Your task to perform on an android device: turn on the 24-hour format for clock Image 0: 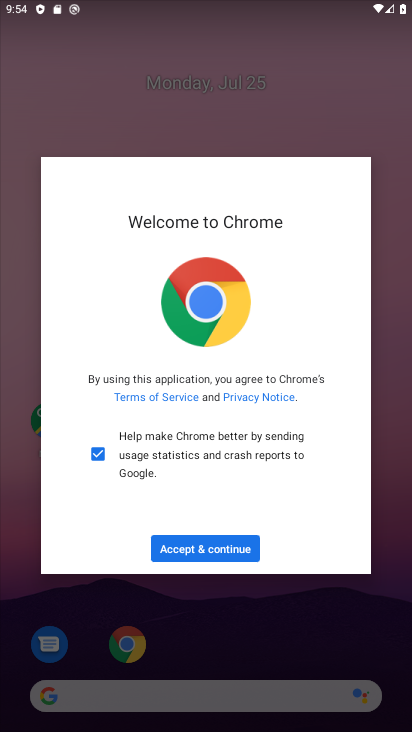
Step 0: click (228, 556)
Your task to perform on an android device: turn on the 24-hour format for clock Image 1: 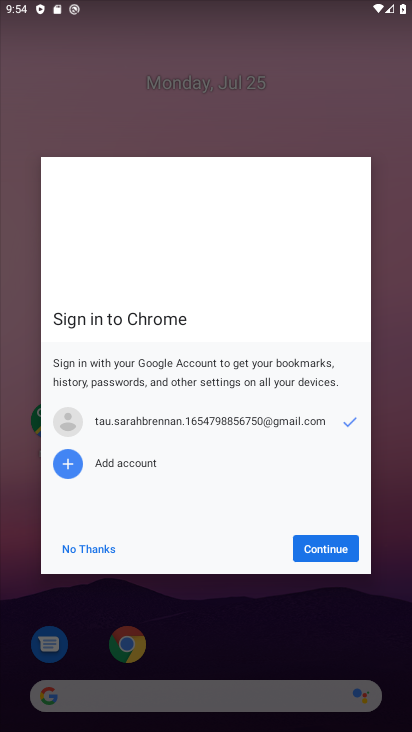
Step 1: click (332, 555)
Your task to perform on an android device: turn on the 24-hour format for clock Image 2: 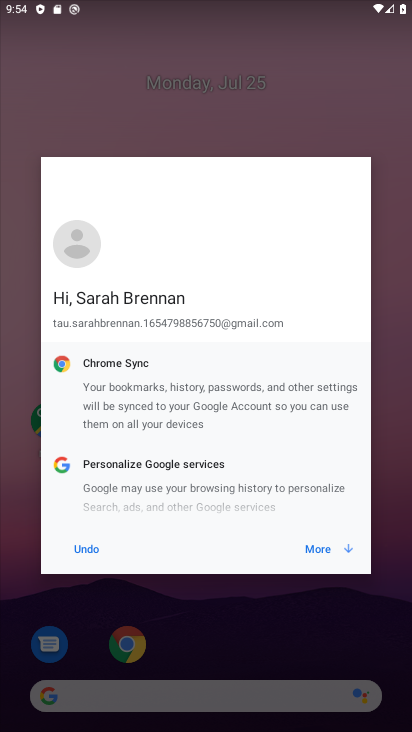
Step 2: click (325, 551)
Your task to perform on an android device: turn on the 24-hour format for clock Image 3: 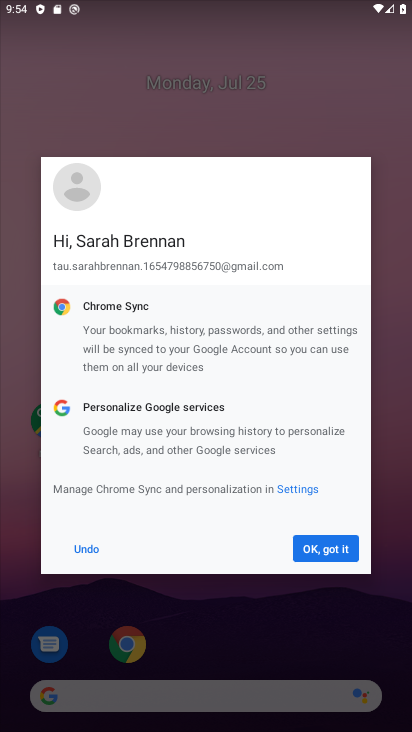
Step 3: click (327, 557)
Your task to perform on an android device: turn on the 24-hour format for clock Image 4: 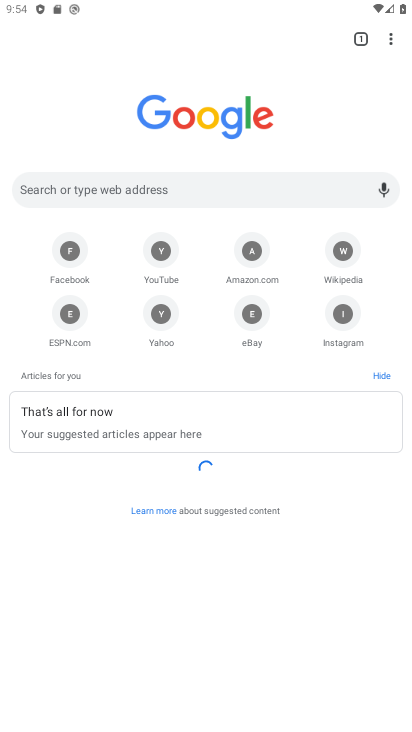
Step 4: press home button
Your task to perform on an android device: turn on the 24-hour format for clock Image 5: 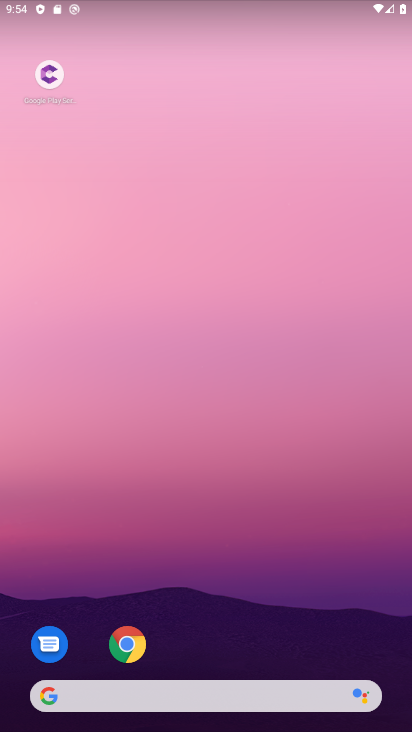
Step 5: drag from (235, 648) to (292, 94)
Your task to perform on an android device: turn on the 24-hour format for clock Image 6: 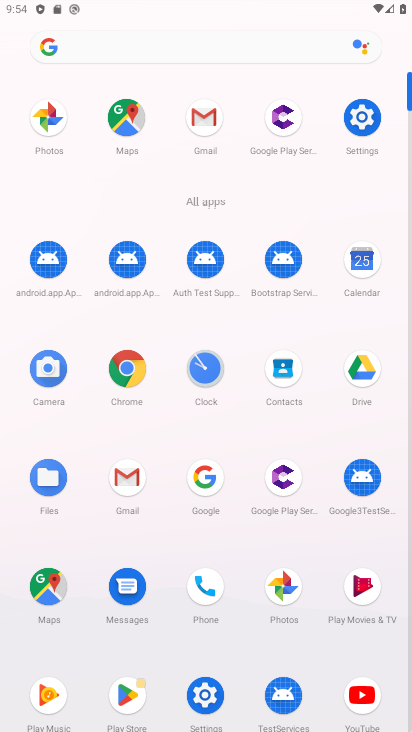
Step 6: click (203, 371)
Your task to perform on an android device: turn on the 24-hour format for clock Image 7: 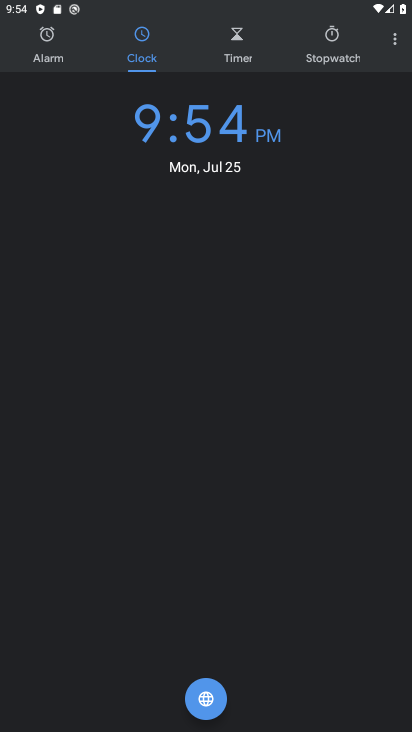
Step 7: click (398, 41)
Your task to perform on an android device: turn on the 24-hour format for clock Image 8: 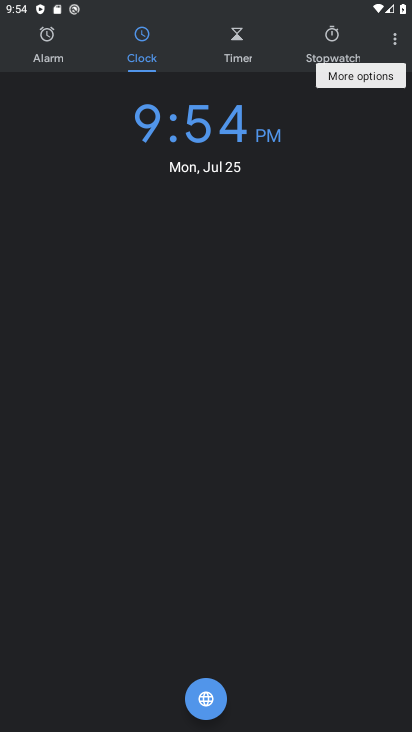
Step 8: click (389, 40)
Your task to perform on an android device: turn on the 24-hour format for clock Image 9: 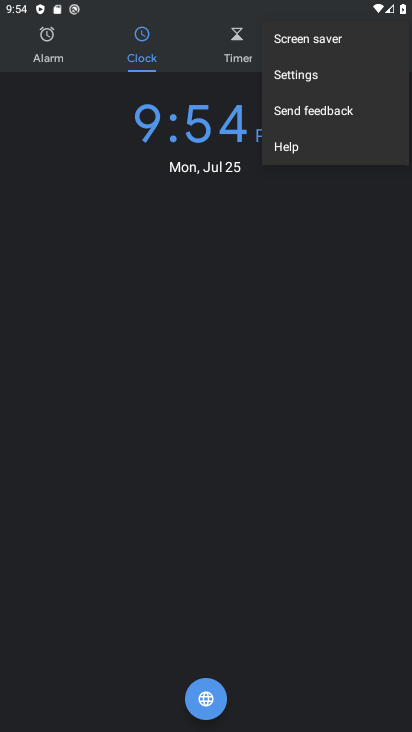
Step 9: click (321, 68)
Your task to perform on an android device: turn on the 24-hour format for clock Image 10: 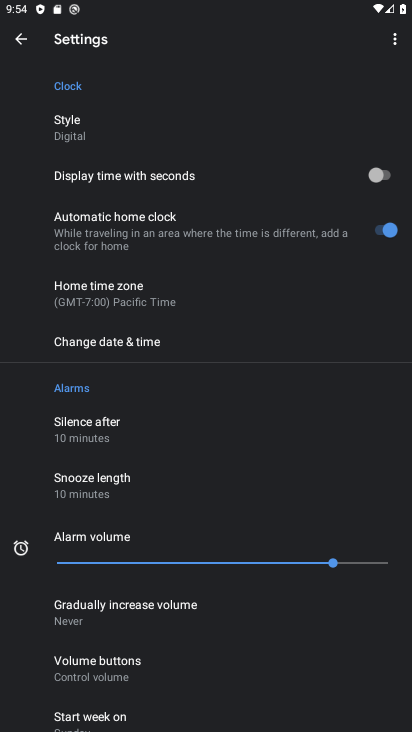
Step 10: click (154, 346)
Your task to perform on an android device: turn on the 24-hour format for clock Image 11: 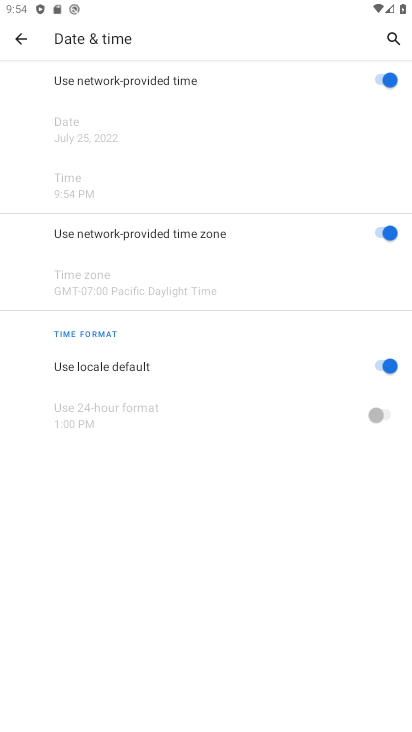
Step 11: click (391, 367)
Your task to perform on an android device: turn on the 24-hour format for clock Image 12: 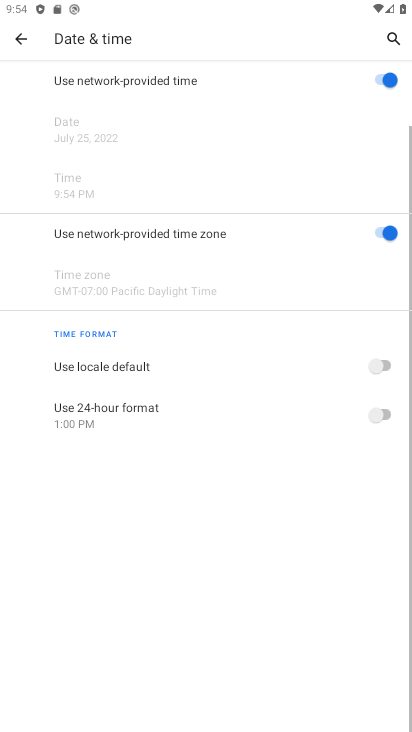
Step 12: click (385, 415)
Your task to perform on an android device: turn on the 24-hour format for clock Image 13: 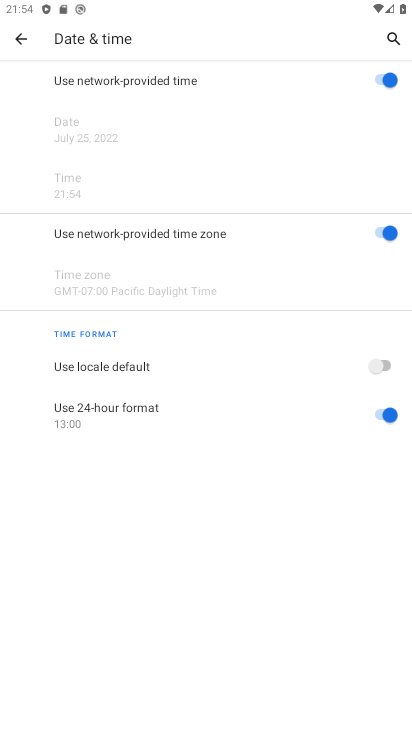
Step 13: task complete